Your task to perform on an android device: Open the calendar app, open the side menu, and click the "Day" option Image 0: 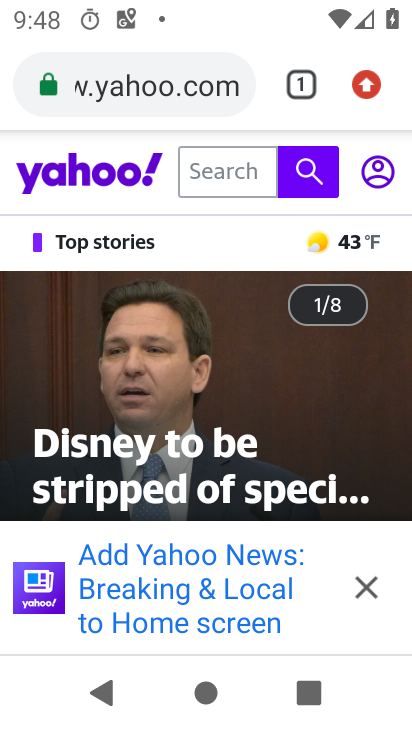
Step 0: press home button
Your task to perform on an android device: Open the calendar app, open the side menu, and click the "Day" option Image 1: 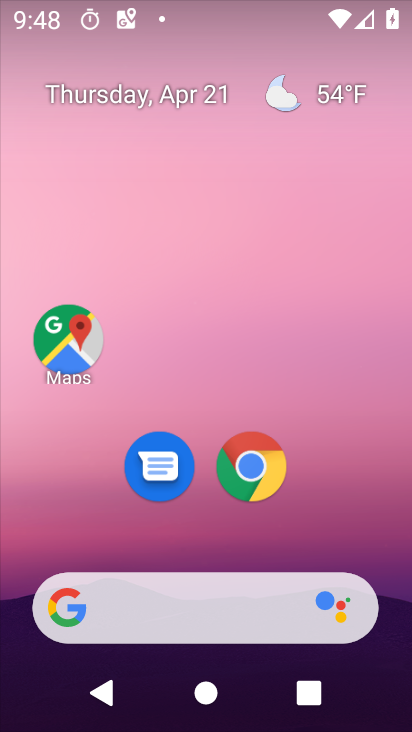
Step 1: drag from (372, 538) to (374, 115)
Your task to perform on an android device: Open the calendar app, open the side menu, and click the "Day" option Image 2: 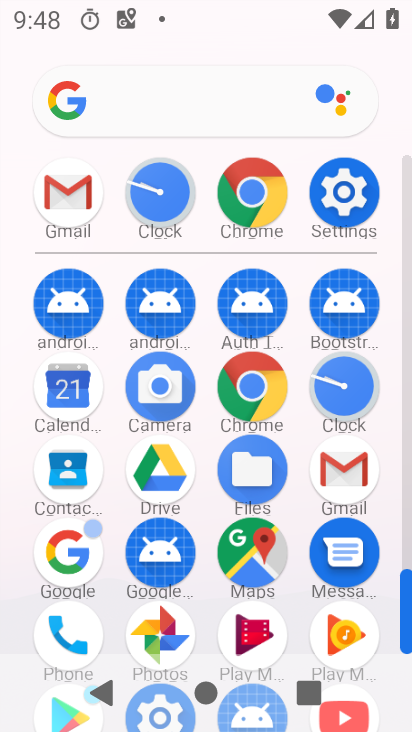
Step 2: click (84, 413)
Your task to perform on an android device: Open the calendar app, open the side menu, and click the "Day" option Image 3: 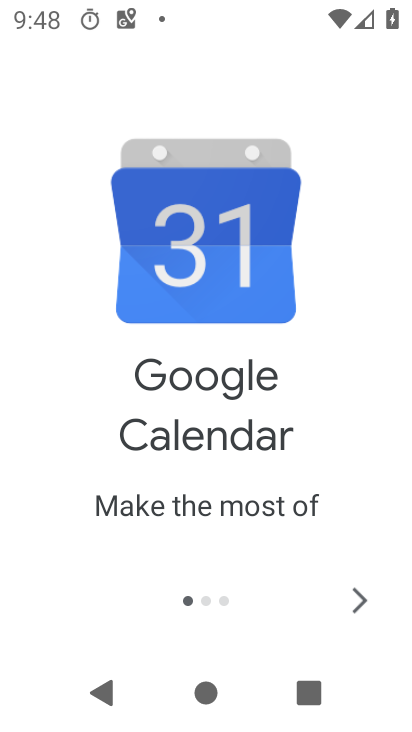
Step 3: click (362, 605)
Your task to perform on an android device: Open the calendar app, open the side menu, and click the "Day" option Image 4: 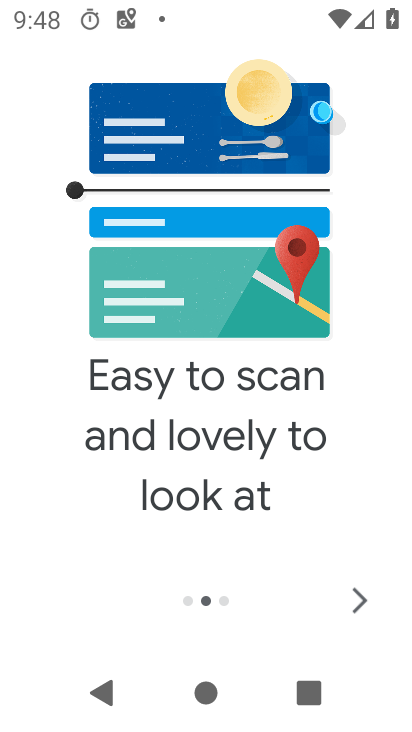
Step 4: click (354, 599)
Your task to perform on an android device: Open the calendar app, open the side menu, and click the "Day" option Image 5: 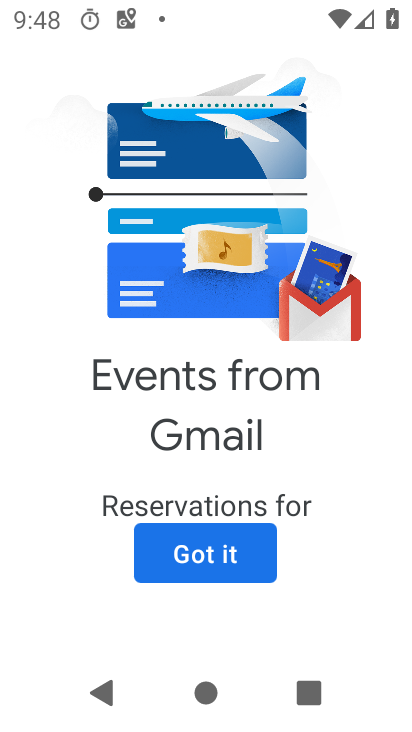
Step 5: click (185, 533)
Your task to perform on an android device: Open the calendar app, open the side menu, and click the "Day" option Image 6: 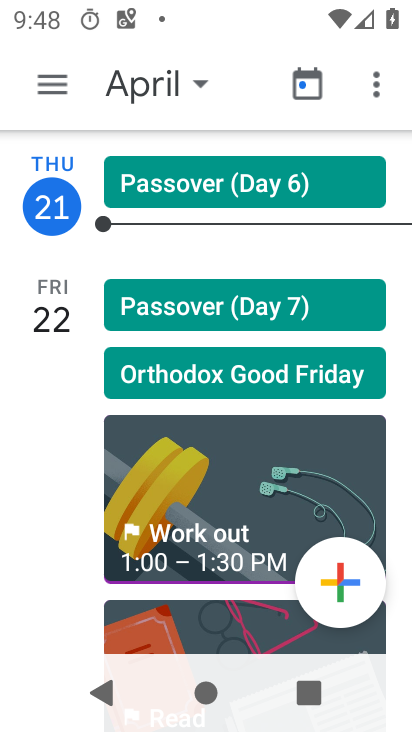
Step 6: click (57, 84)
Your task to perform on an android device: Open the calendar app, open the side menu, and click the "Day" option Image 7: 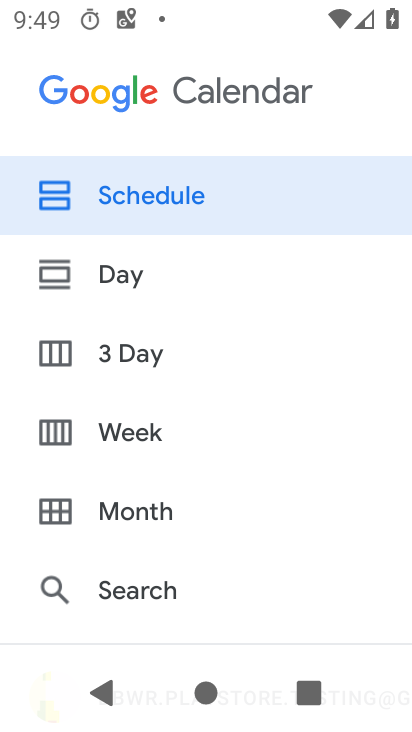
Step 7: click (65, 266)
Your task to perform on an android device: Open the calendar app, open the side menu, and click the "Day" option Image 8: 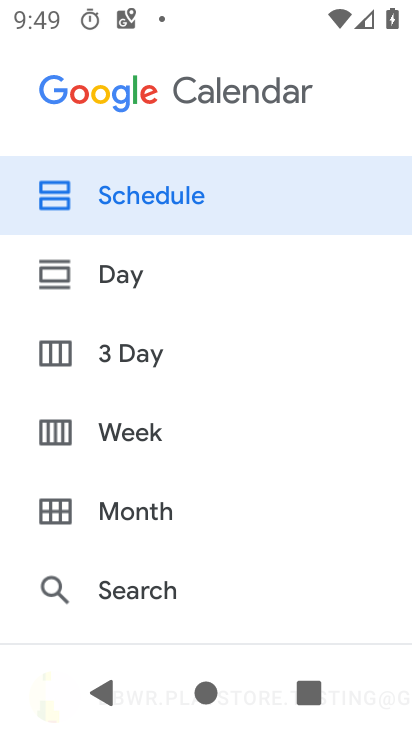
Step 8: click (110, 283)
Your task to perform on an android device: Open the calendar app, open the side menu, and click the "Day" option Image 9: 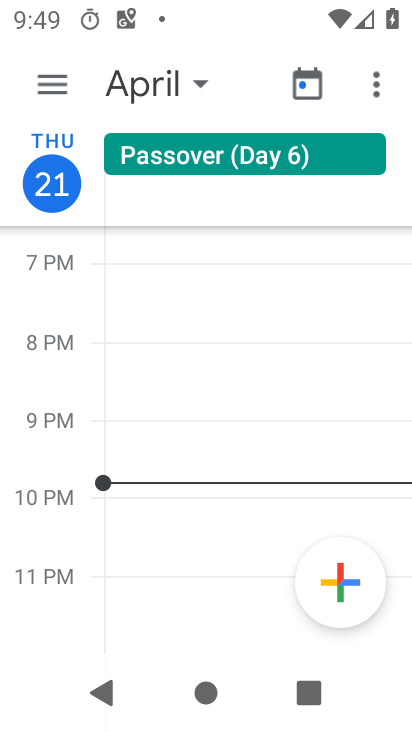
Step 9: task complete